Your task to perform on an android device: toggle airplane mode Image 0: 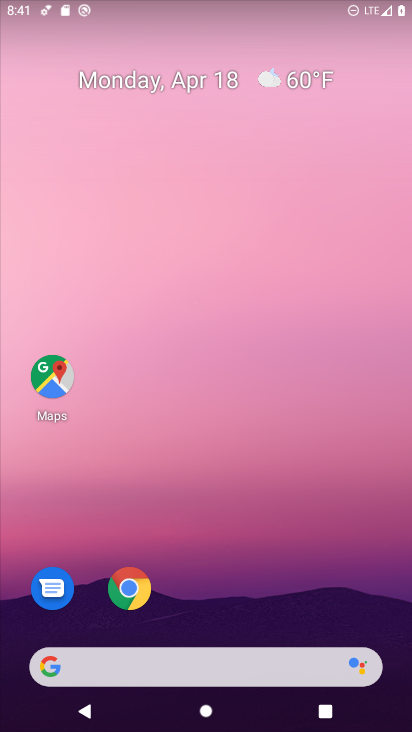
Step 0: drag from (393, 655) to (331, 259)
Your task to perform on an android device: toggle airplane mode Image 1: 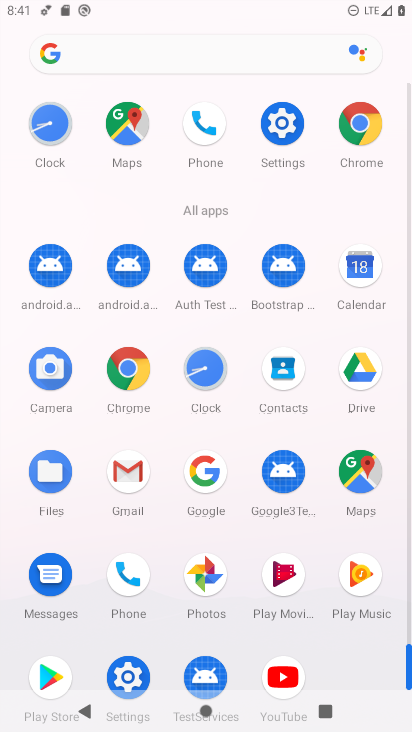
Step 1: click (124, 671)
Your task to perform on an android device: toggle airplane mode Image 2: 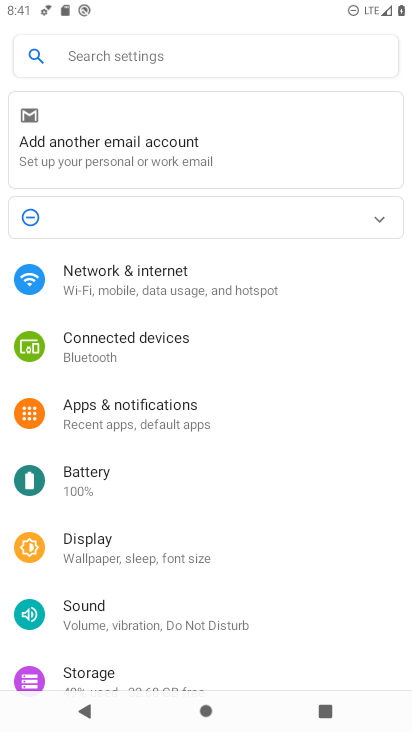
Step 2: click (142, 277)
Your task to perform on an android device: toggle airplane mode Image 3: 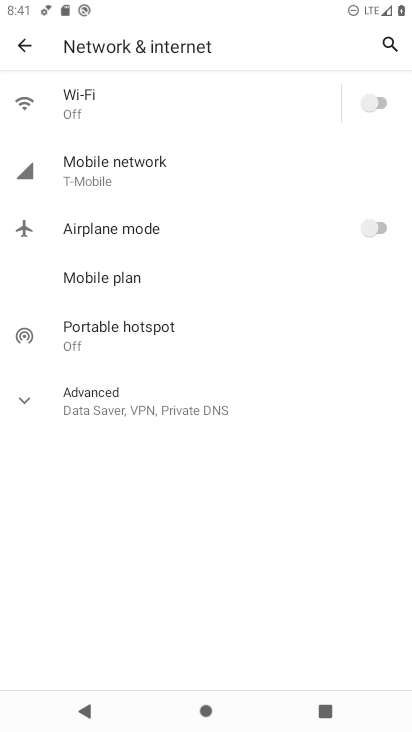
Step 3: click (384, 225)
Your task to perform on an android device: toggle airplane mode Image 4: 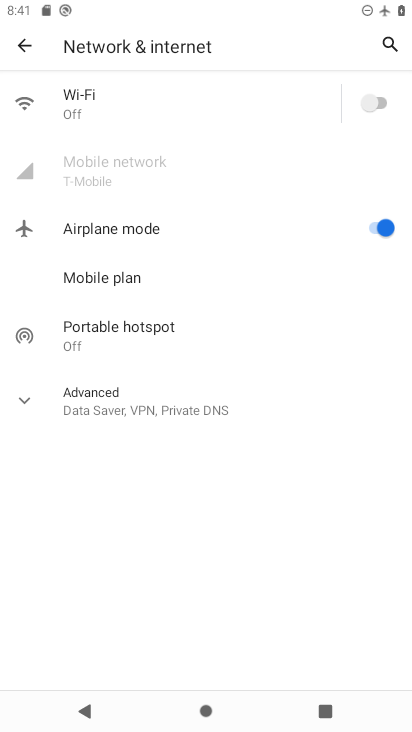
Step 4: task complete